Your task to perform on an android device: Turn on the flashlight Image 0: 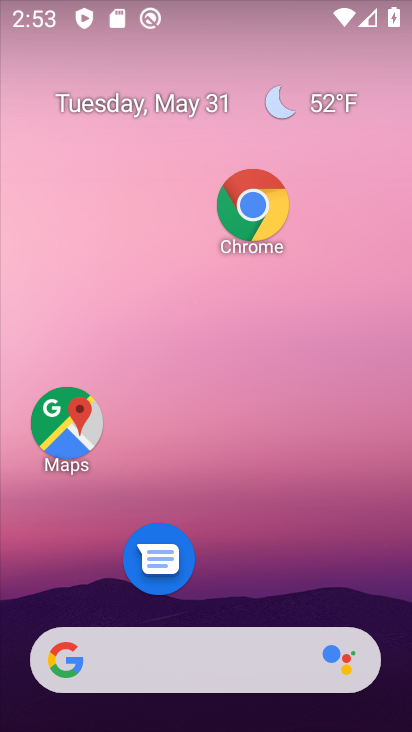
Step 0: drag from (205, 595) to (202, 115)
Your task to perform on an android device: Turn on the flashlight Image 1: 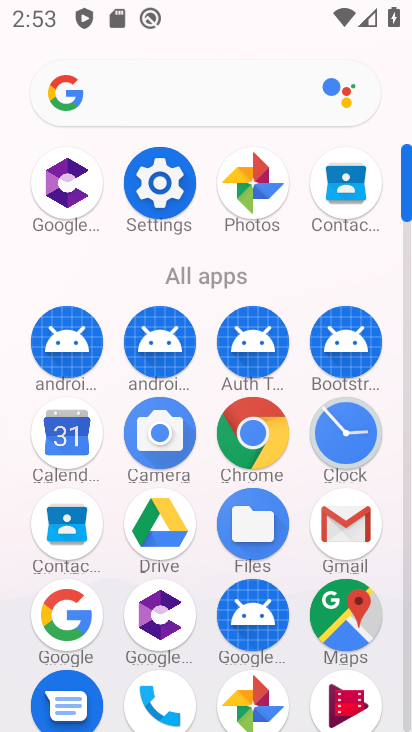
Step 1: click (163, 158)
Your task to perform on an android device: Turn on the flashlight Image 2: 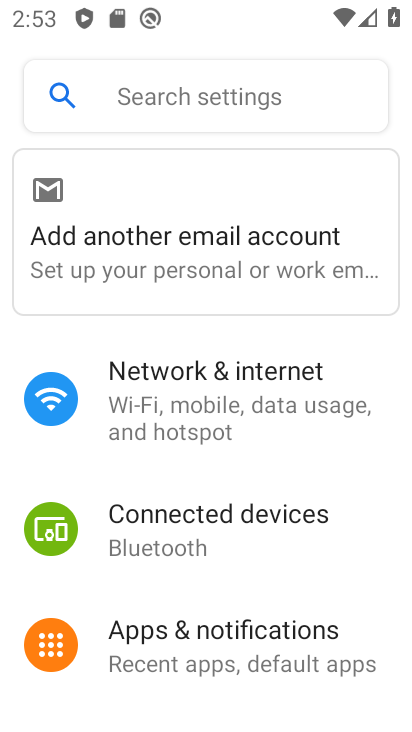
Step 2: task complete